Your task to perform on an android device: toggle sleep mode Image 0: 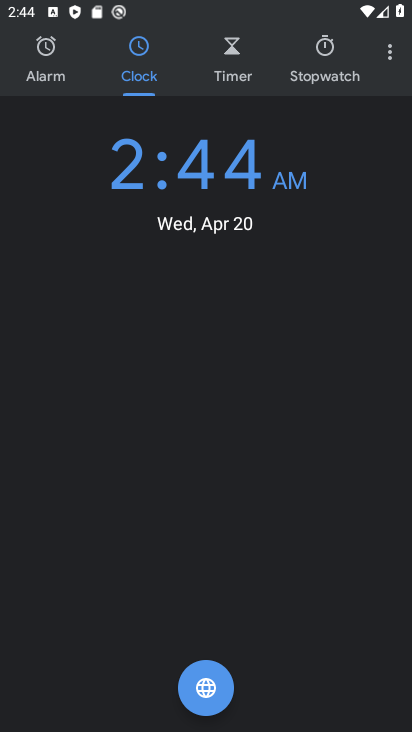
Step 0: press home button
Your task to perform on an android device: toggle sleep mode Image 1: 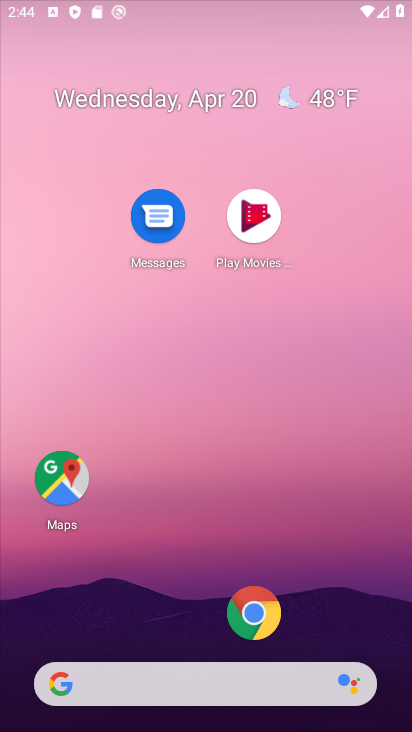
Step 1: drag from (273, 519) to (272, 2)
Your task to perform on an android device: toggle sleep mode Image 2: 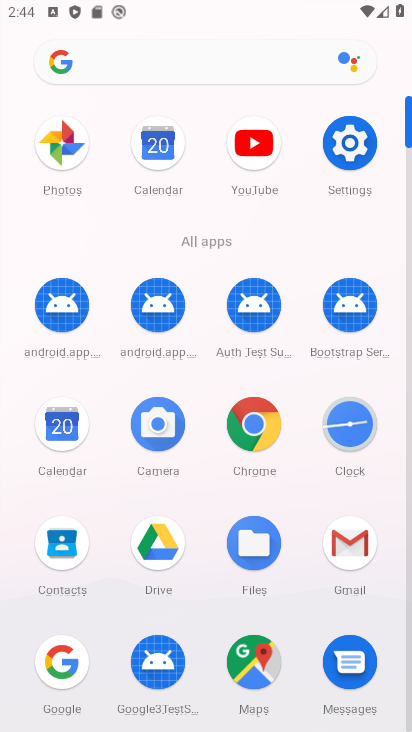
Step 2: click (360, 165)
Your task to perform on an android device: toggle sleep mode Image 3: 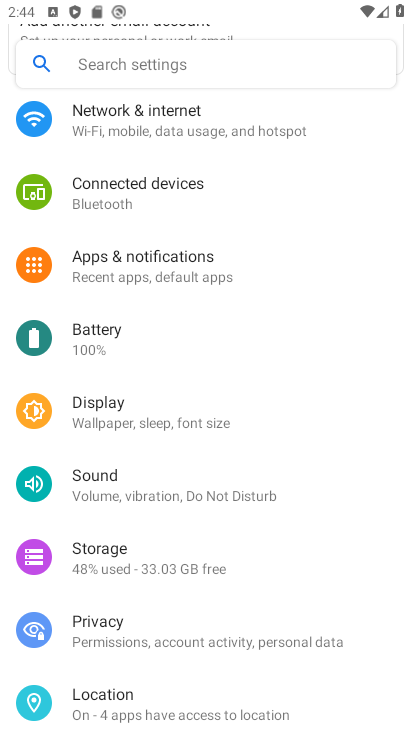
Step 3: task complete